Your task to perform on an android device: Open location settings Image 0: 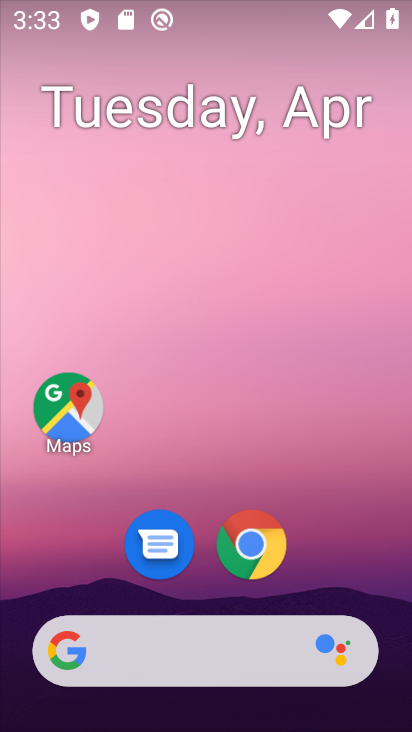
Step 0: drag from (321, 447) to (316, 151)
Your task to perform on an android device: Open location settings Image 1: 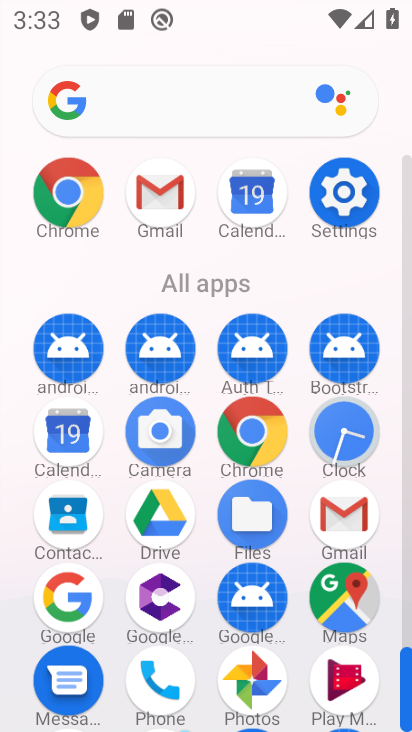
Step 1: click (359, 206)
Your task to perform on an android device: Open location settings Image 2: 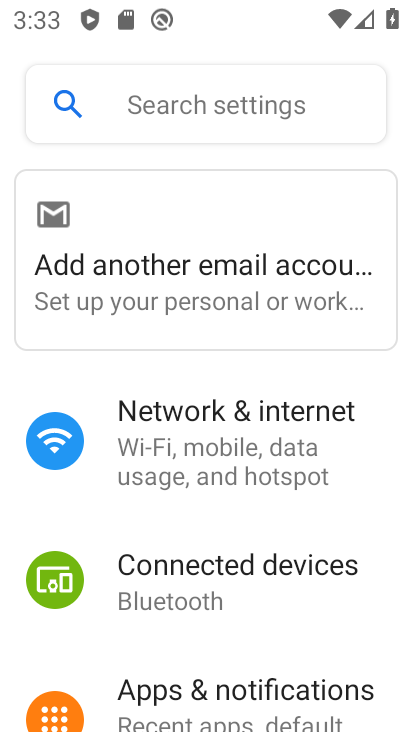
Step 2: drag from (287, 595) to (288, 283)
Your task to perform on an android device: Open location settings Image 3: 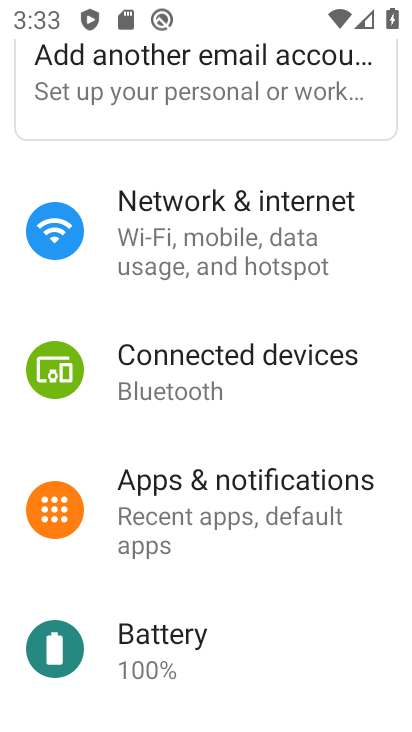
Step 3: drag from (267, 642) to (285, 245)
Your task to perform on an android device: Open location settings Image 4: 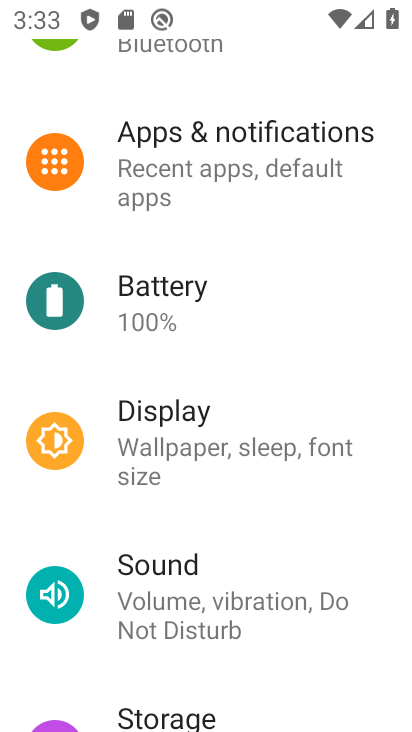
Step 4: click (290, 563)
Your task to perform on an android device: Open location settings Image 5: 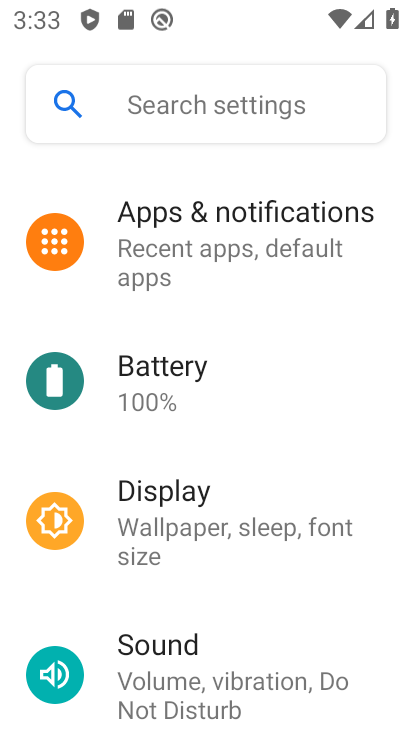
Step 5: drag from (270, 328) to (283, 227)
Your task to perform on an android device: Open location settings Image 6: 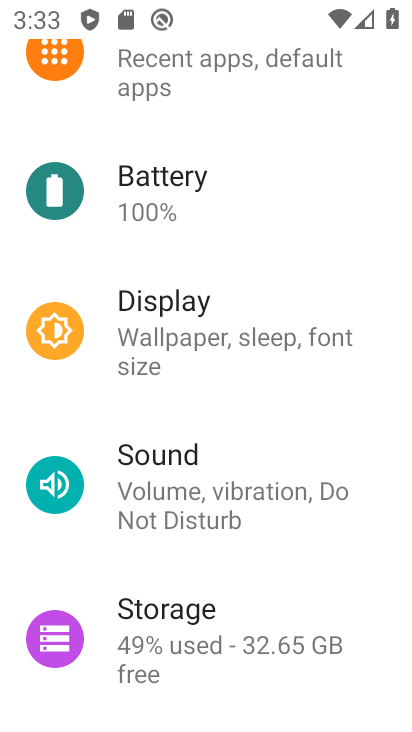
Step 6: drag from (248, 682) to (278, 335)
Your task to perform on an android device: Open location settings Image 7: 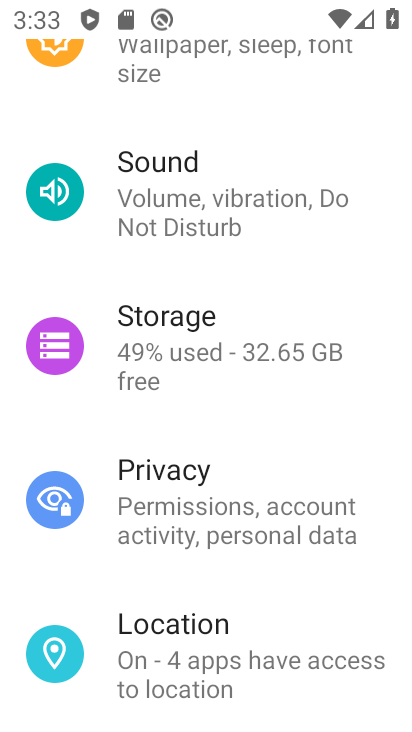
Step 7: click (232, 654)
Your task to perform on an android device: Open location settings Image 8: 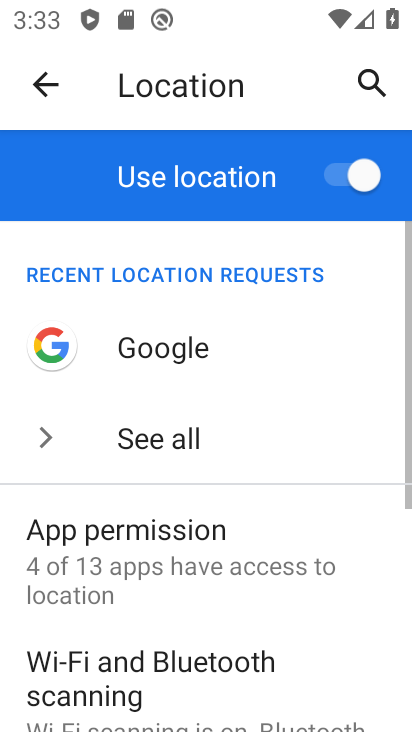
Step 8: task complete